Your task to perform on an android device: Open the calendar app, open the side menu, and click the "Day" option Image 0: 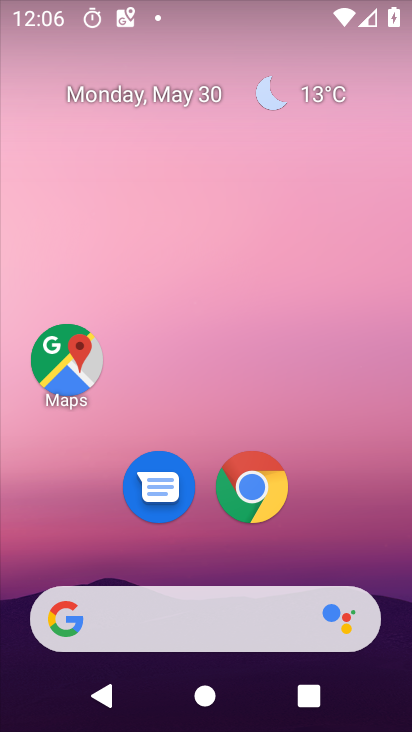
Step 0: drag from (395, 638) to (352, 103)
Your task to perform on an android device: Open the calendar app, open the side menu, and click the "Day" option Image 1: 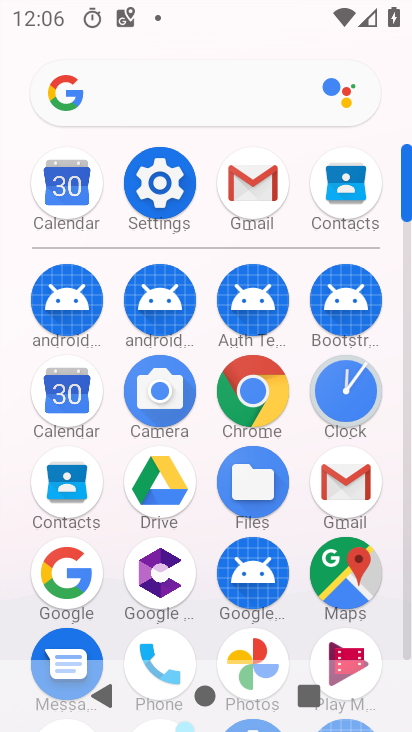
Step 1: click (80, 402)
Your task to perform on an android device: Open the calendar app, open the side menu, and click the "Day" option Image 2: 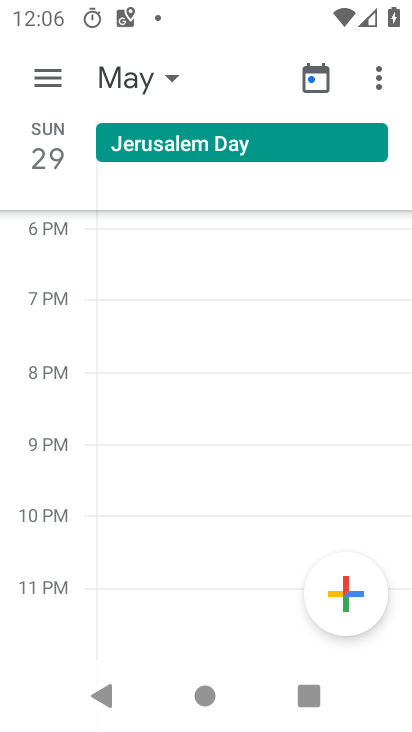
Step 2: click (34, 84)
Your task to perform on an android device: Open the calendar app, open the side menu, and click the "Day" option Image 3: 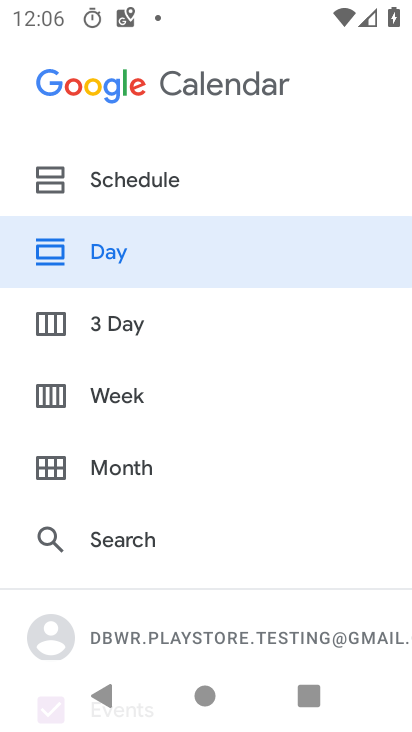
Step 3: click (96, 249)
Your task to perform on an android device: Open the calendar app, open the side menu, and click the "Day" option Image 4: 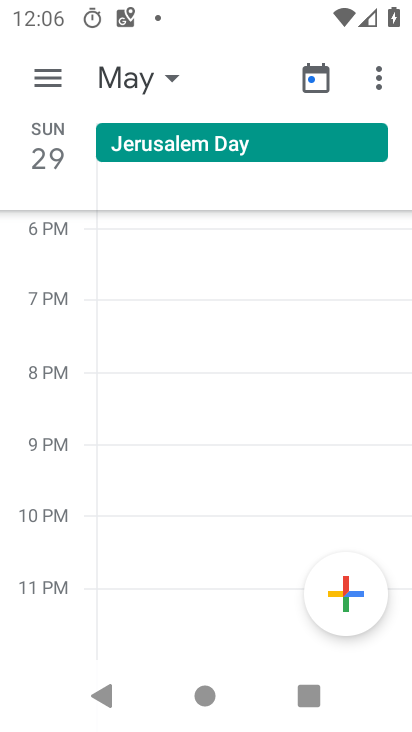
Step 4: click (46, 70)
Your task to perform on an android device: Open the calendar app, open the side menu, and click the "Day" option Image 5: 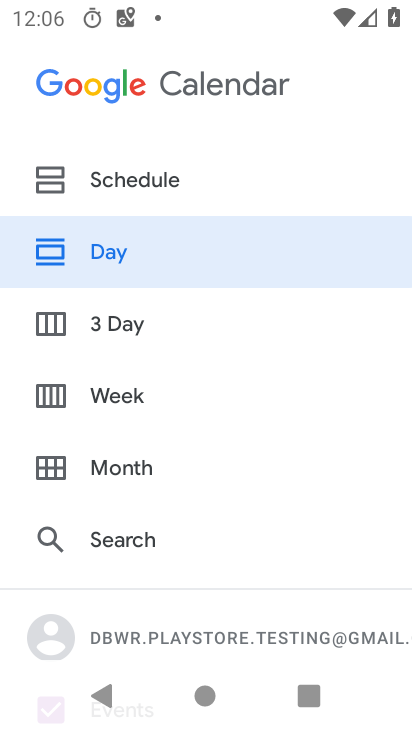
Step 5: click (107, 242)
Your task to perform on an android device: Open the calendar app, open the side menu, and click the "Day" option Image 6: 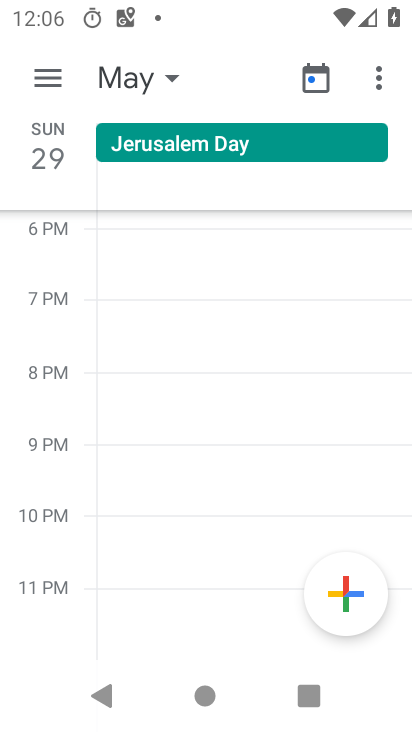
Step 6: task complete